Your task to perform on an android device: install app "PlayWell" Image 0: 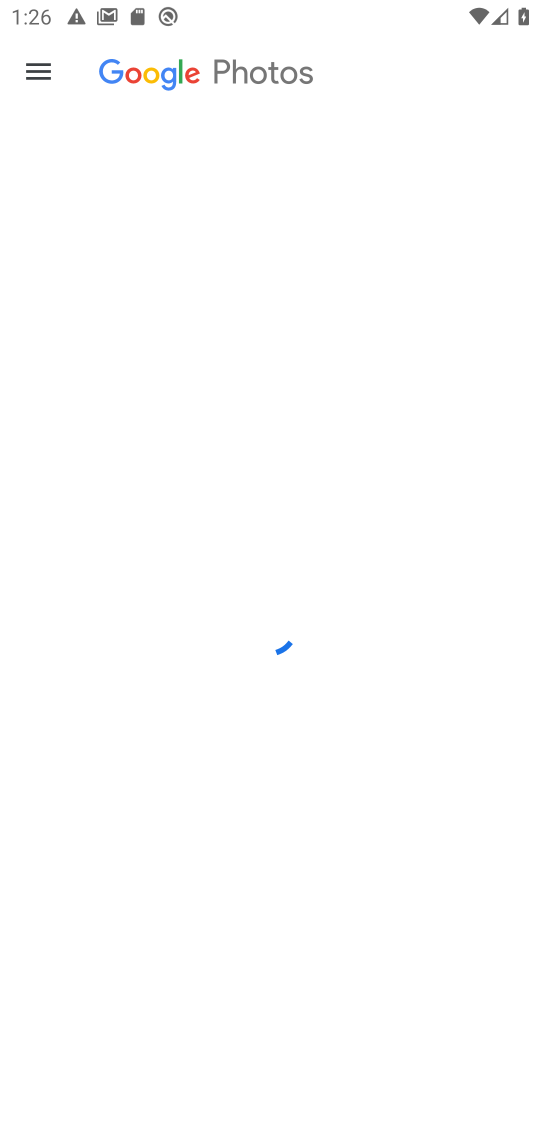
Step 0: press back button
Your task to perform on an android device: install app "PlayWell" Image 1: 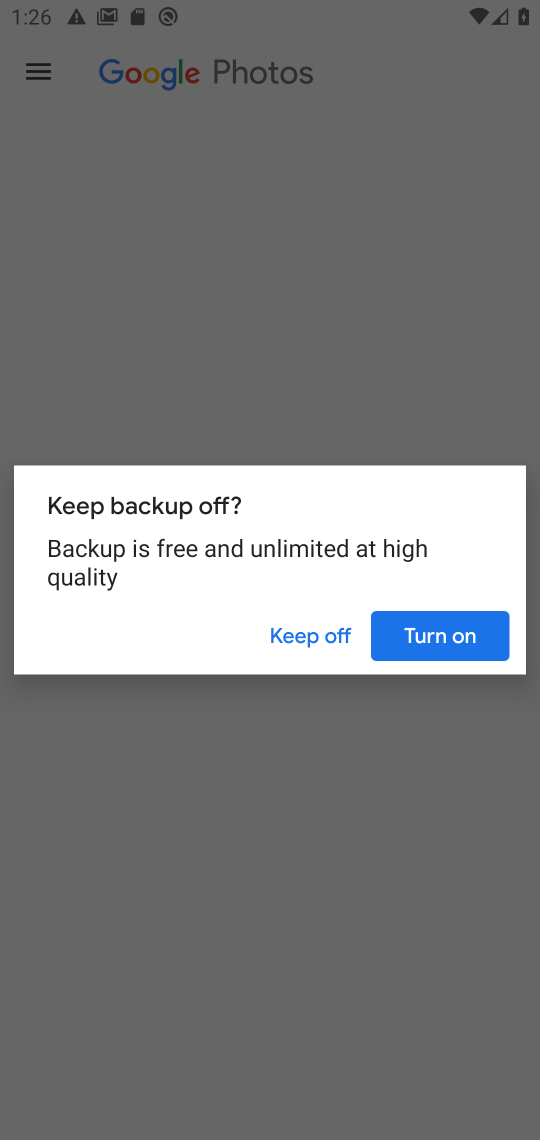
Step 1: press back button
Your task to perform on an android device: install app "PlayWell" Image 2: 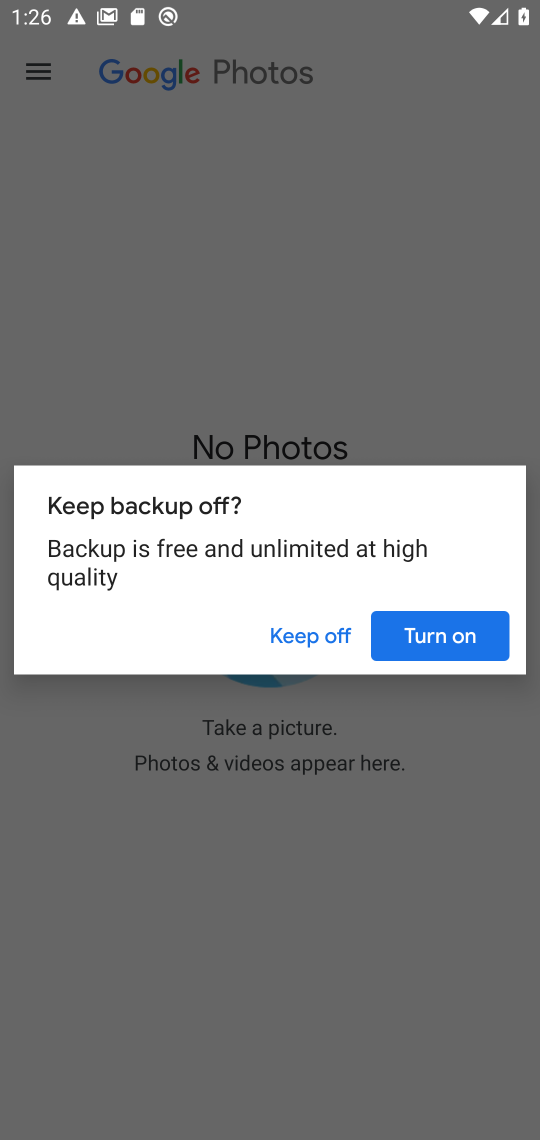
Step 2: press home button
Your task to perform on an android device: install app "PlayWell" Image 3: 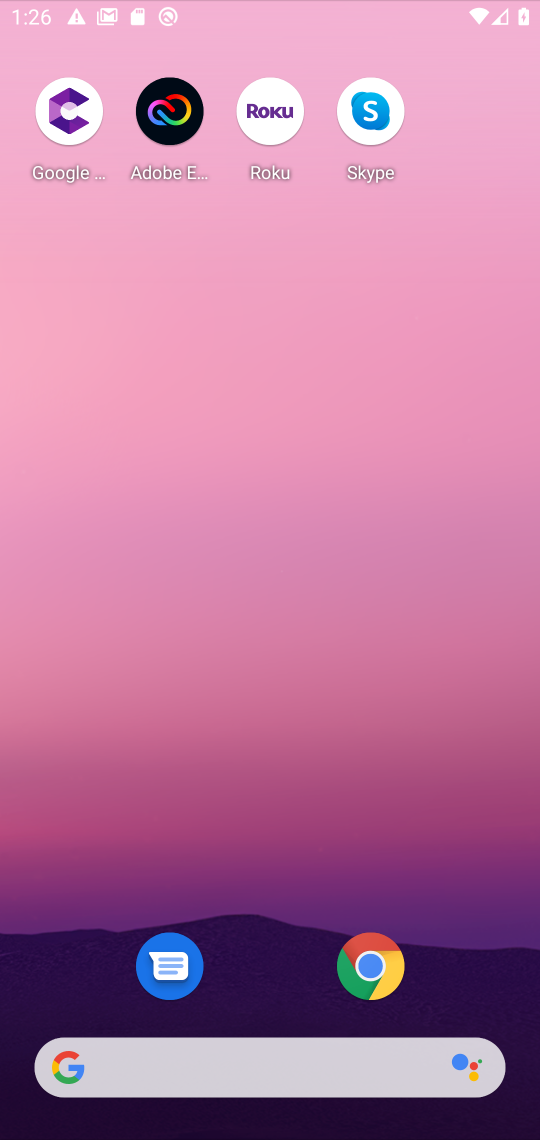
Step 3: drag from (191, 1013) to (162, 87)
Your task to perform on an android device: install app "PlayWell" Image 4: 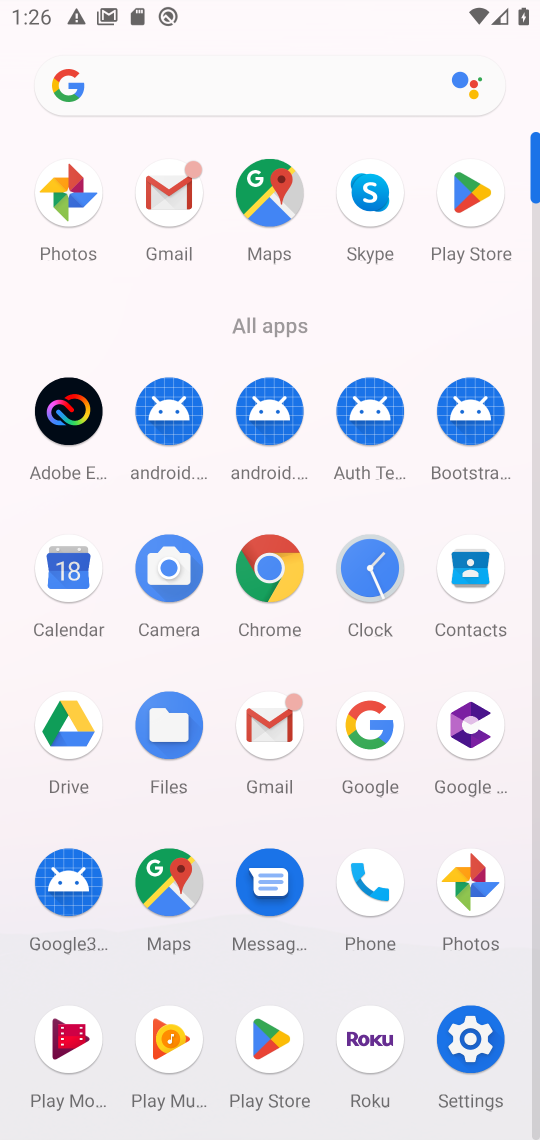
Step 4: click (453, 191)
Your task to perform on an android device: install app "PlayWell" Image 5: 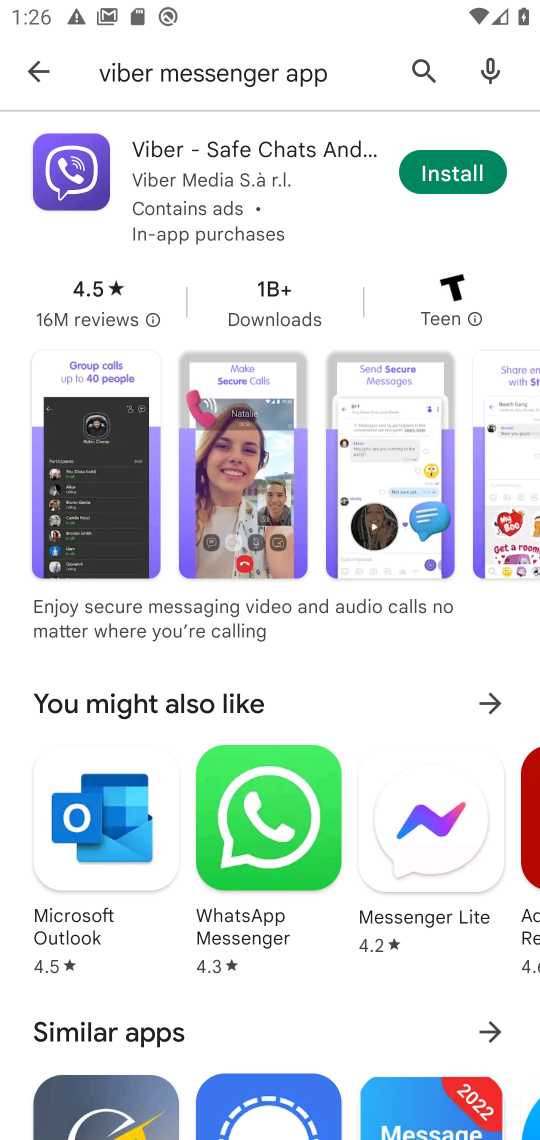
Step 5: click (47, 68)
Your task to perform on an android device: install app "PlayWell" Image 6: 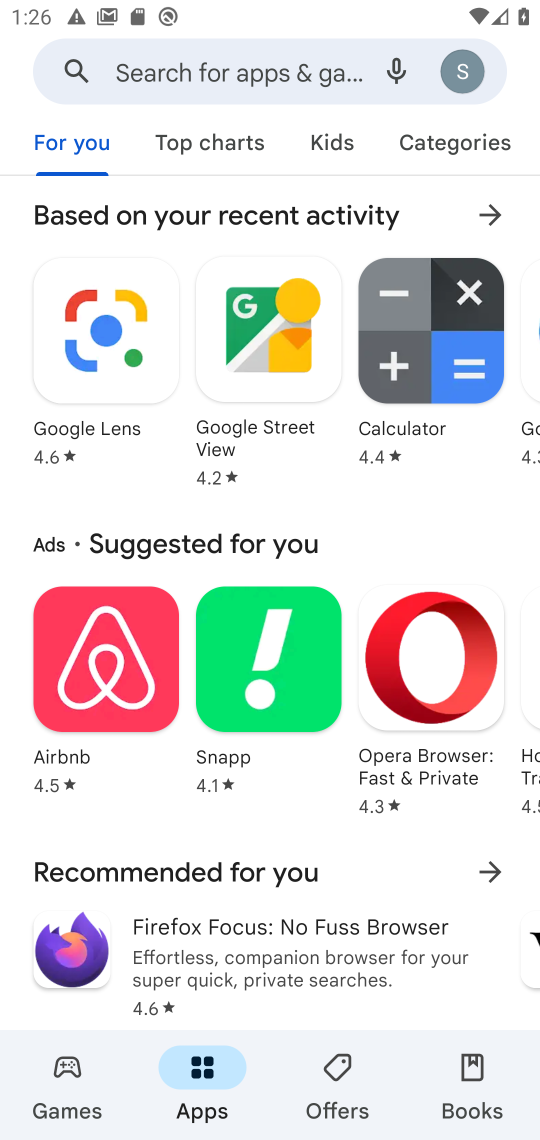
Step 6: click (227, 76)
Your task to perform on an android device: install app "PlayWell" Image 7: 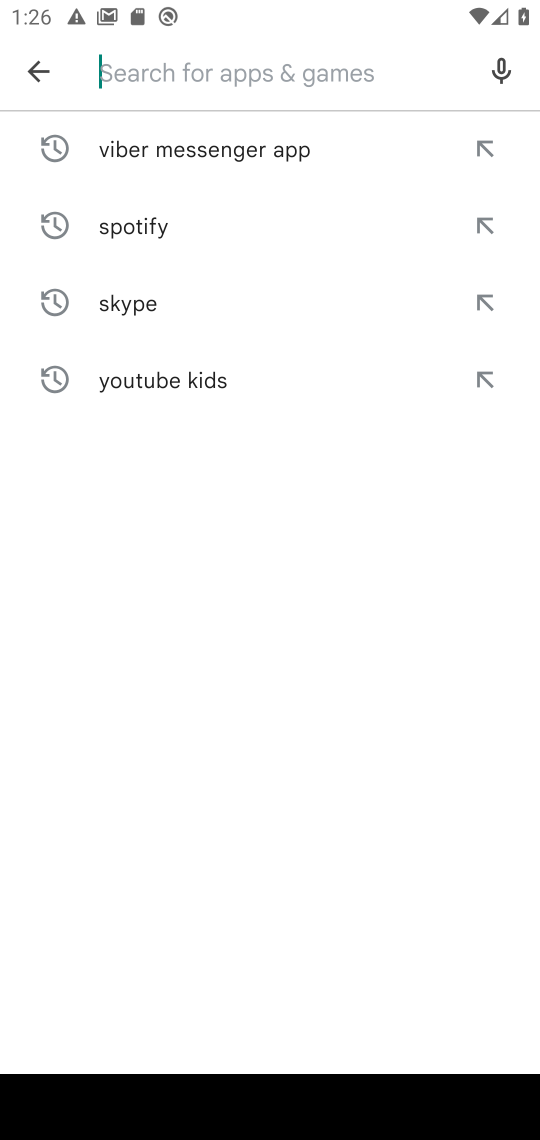
Step 7: type "PlayWell"
Your task to perform on an android device: install app "PlayWell" Image 8: 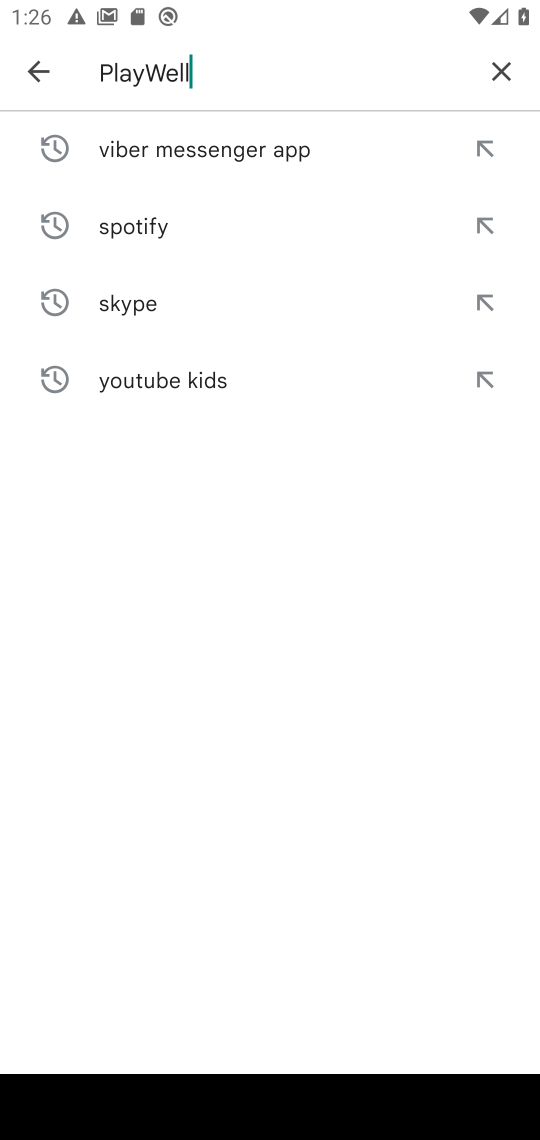
Step 8: type ""
Your task to perform on an android device: install app "PlayWell" Image 9: 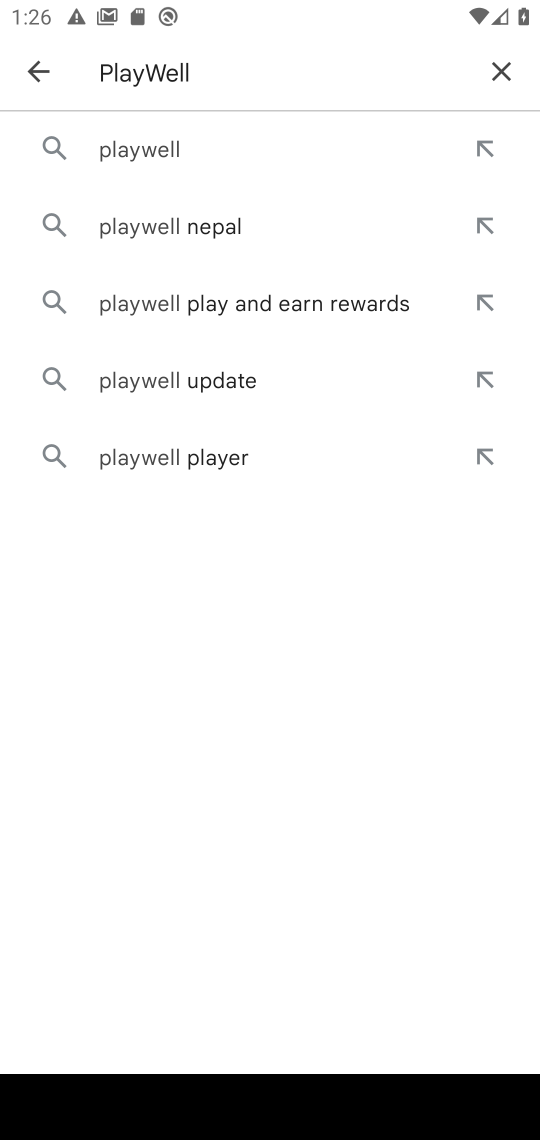
Step 9: click (100, 149)
Your task to perform on an android device: install app "PlayWell" Image 10: 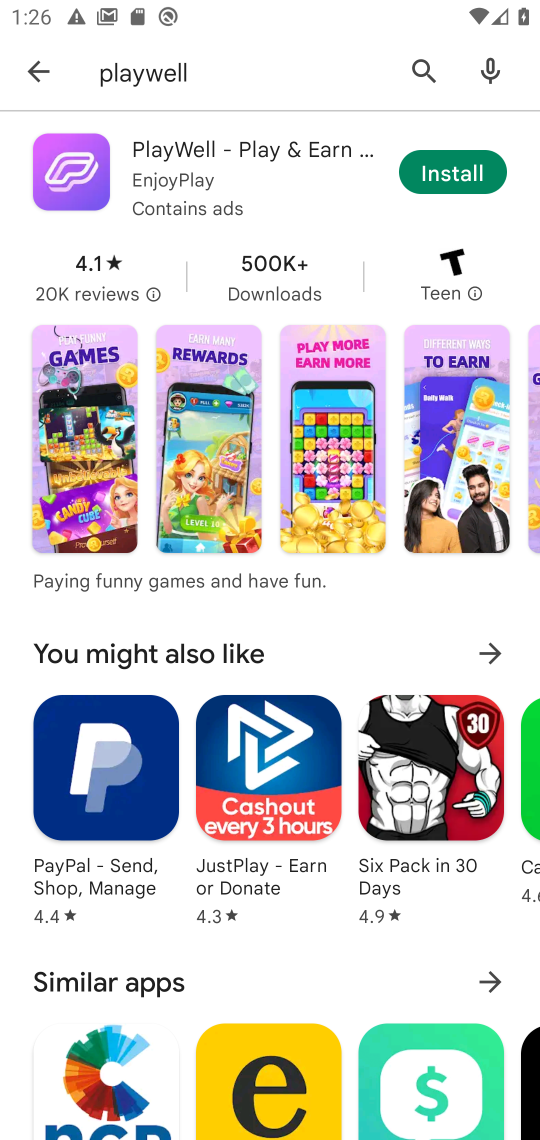
Step 10: click (472, 188)
Your task to perform on an android device: install app "PlayWell" Image 11: 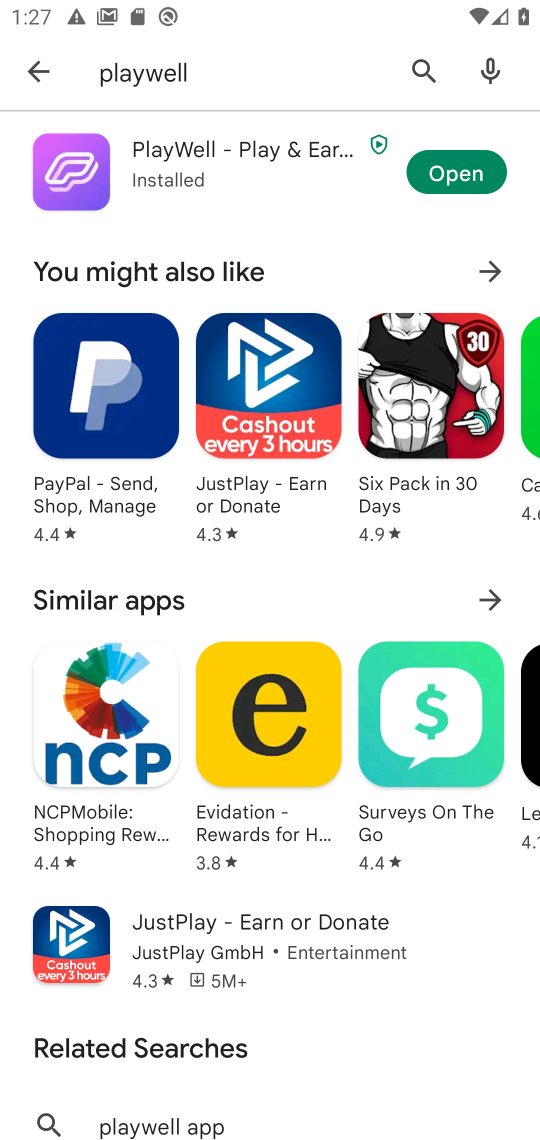
Step 11: click (469, 184)
Your task to perform on an android device: install app "PlayWell" Image 12: 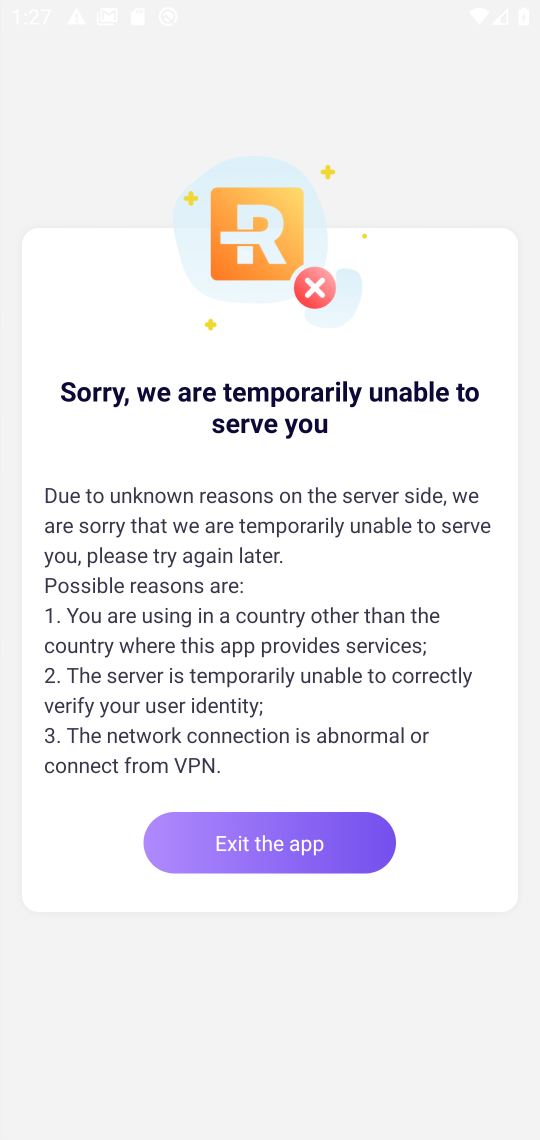
Step 12: task complete